Your task to perform on an android device: set the timer Image 0: 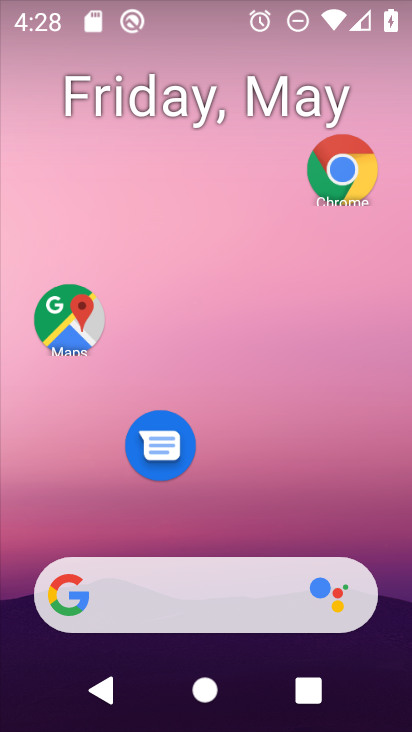
Step 0: drag from (231, 509) to (169, 4)
Your task to perform on an android device: set the timer Image 1: 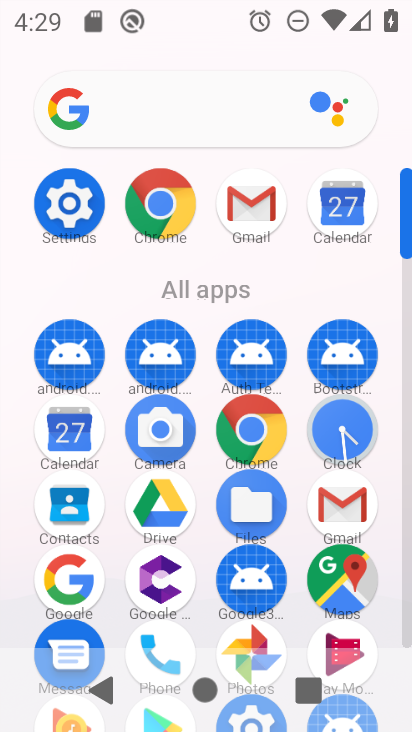
Step 1: click (339, 438)
Your task to perform on an android device: set the timer Image 2: 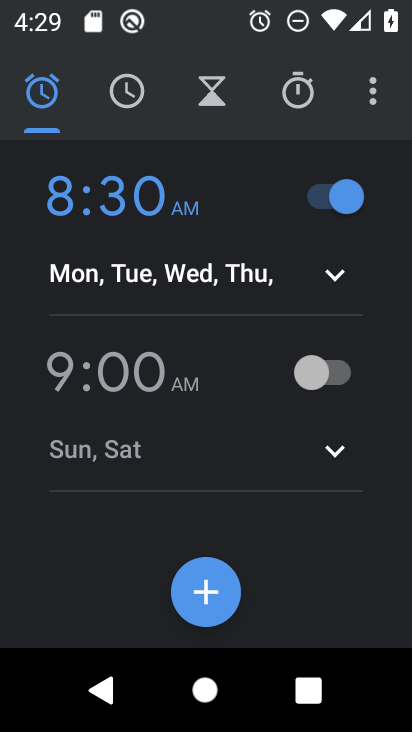
Step 2: click (371, 90)
Your task to perform on an android device: set the timer Image 3: 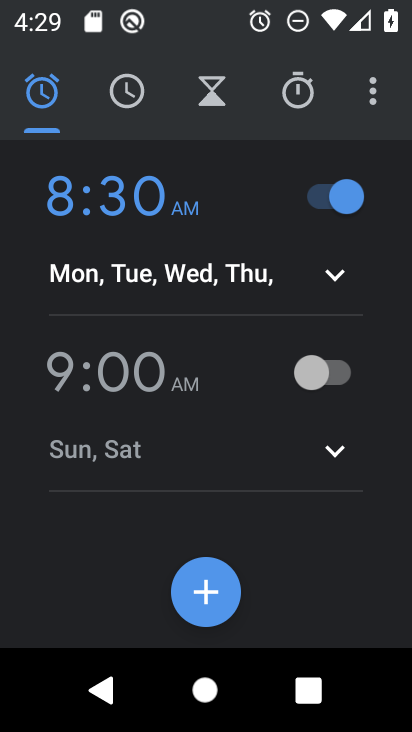
Step 3: click (373, 104)
Your task to perform on an android device: set the timer Image 4: 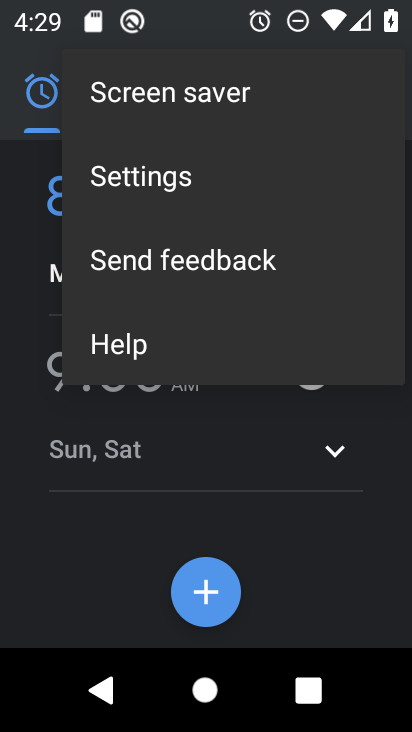
Step 4: click (183, 548)
Your task to perform on an android device: set the timer Image 5: 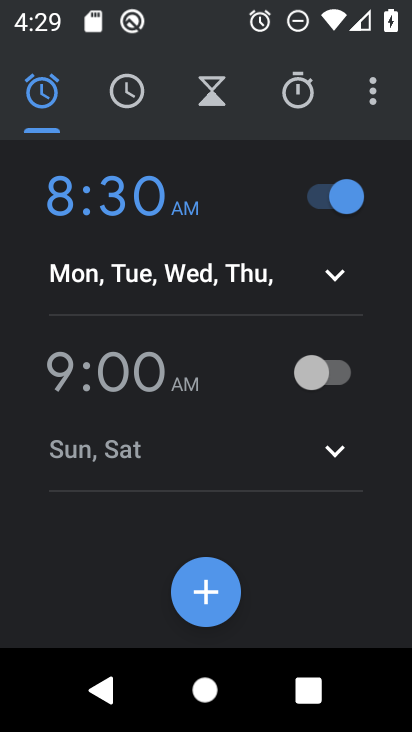
Step 5: click (221, 96)
Your task to perform on an android device: set the timer Image 6: 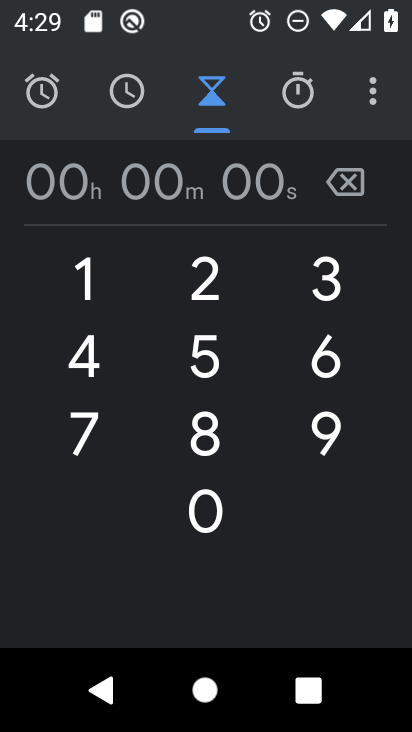
Step 6: click (202, 294)
Your task to perform on an android device: set the timer Image 7: 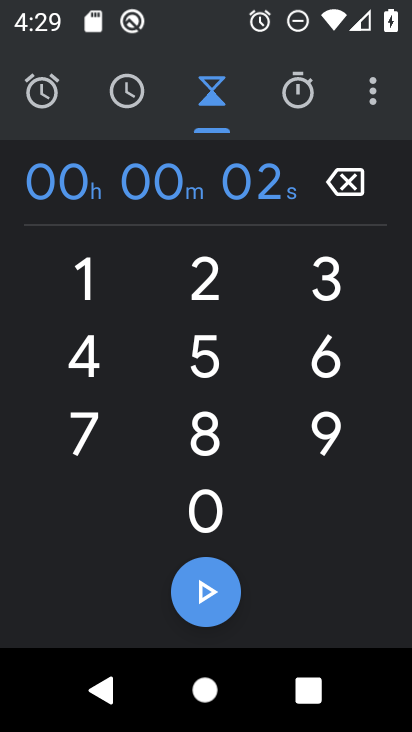
Step 7: click (209, 515)
Your task to perform on an android device: set the timer Image 8: 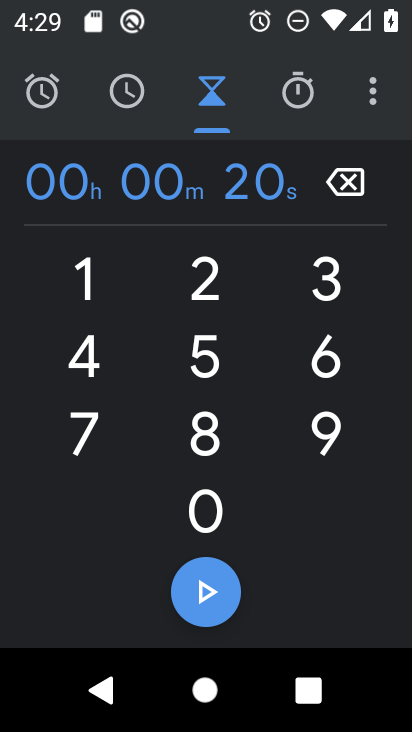
Step 8: click (207, 283)
Your task to perform on an android device: set the timer Image 9: 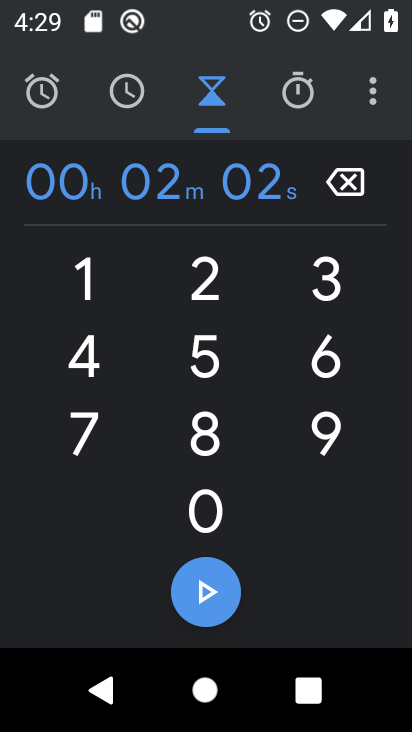
Step 9: click (210, 508)
Your task to perform on an android device: set the timer Image 10: 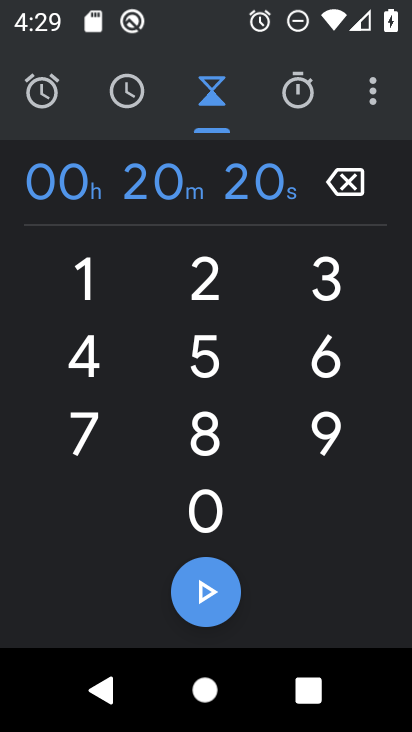
Step 10: click (189, 601)
Your task to perform on an android device: set the timer Image 11: 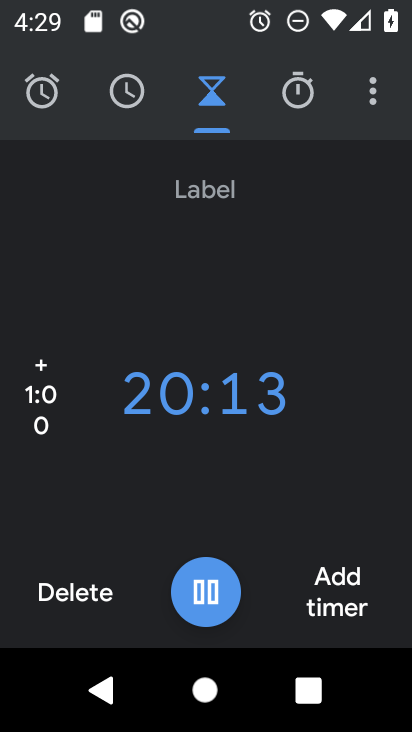
Step 11: task complete